Your task to perform on an android device: turn off notifications in google photos Image 0: 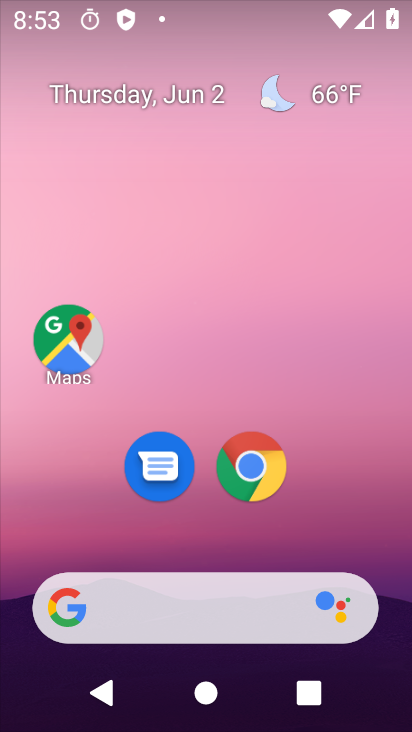
Step 0: drag from (86, 546) to (349, 131)
Your task to perform on an android device: turn off notifications in google photos Image 1: 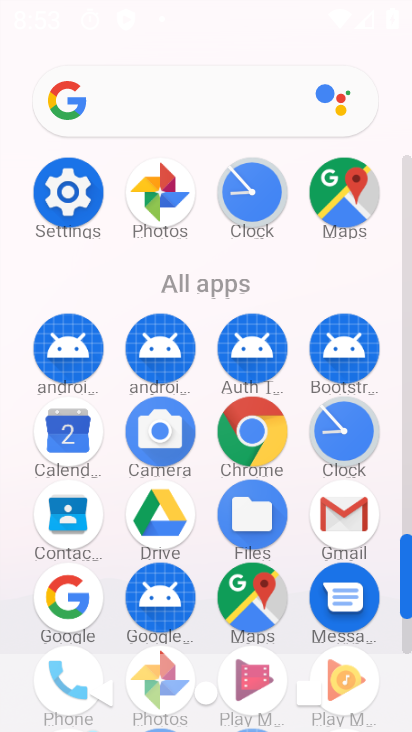
Step 1: drag from (43, 452) to (219, 186)
Your task to perform on an android device: turn off notifications in google photos Image 2: 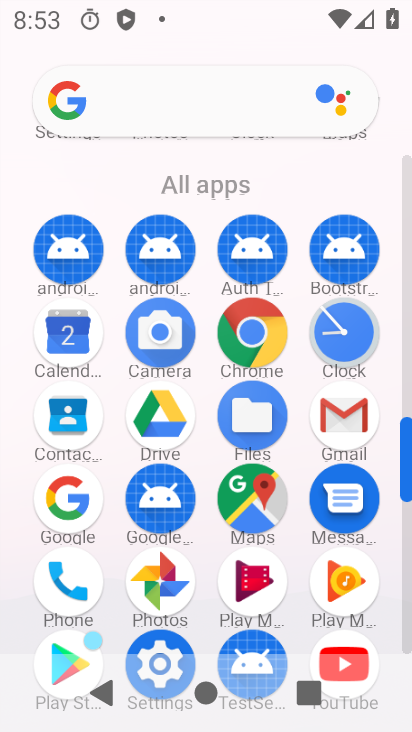
Step 2: click (159, 574)
Your task to perform on an android device: turn off notifications in google photos Image 3: 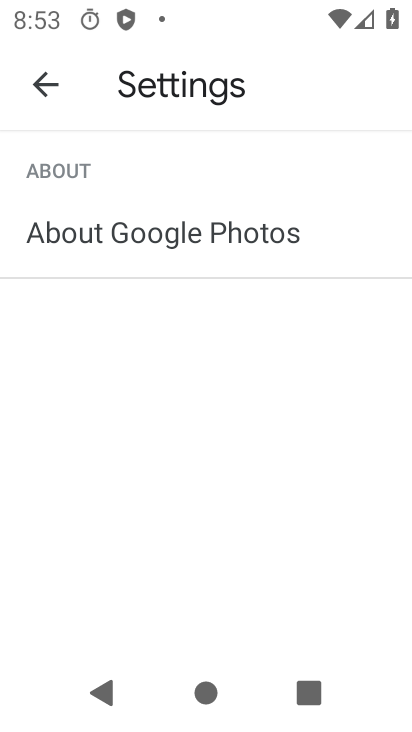
Step 3: click (44, 85)
Your task to perform on an android device: turn off notifications in google photos Image 4: 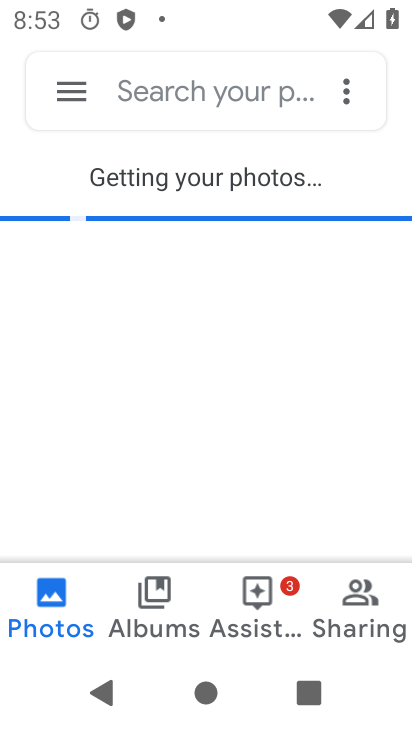
Step 4: click (86, 94)
Your task to perform on an android device: turn off notifications in google photos Image 5: 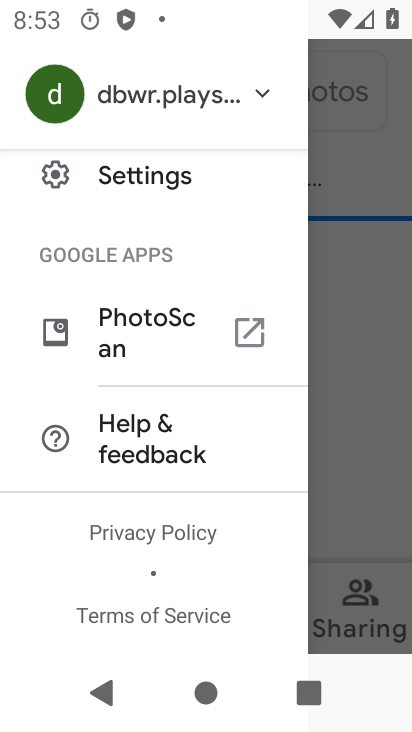
Step 5: click (114, 180)
Your task to perform on an android device: turn off notifications in google photos Image 6: 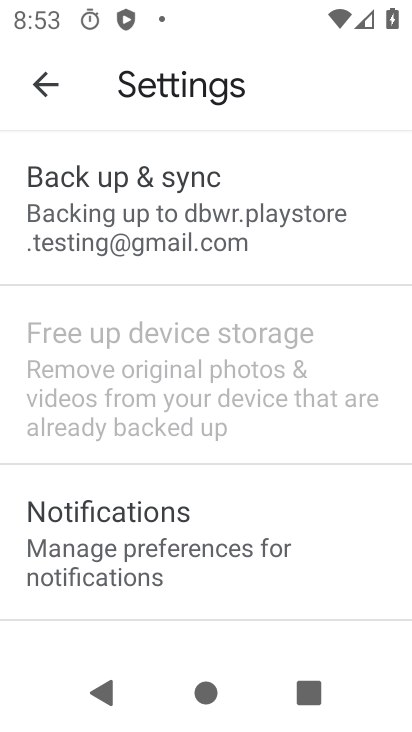
Step 6: drag from (38, 376) to (171, 116)
Your task to perform on an android device: turn off notifications in google photos Image 7: 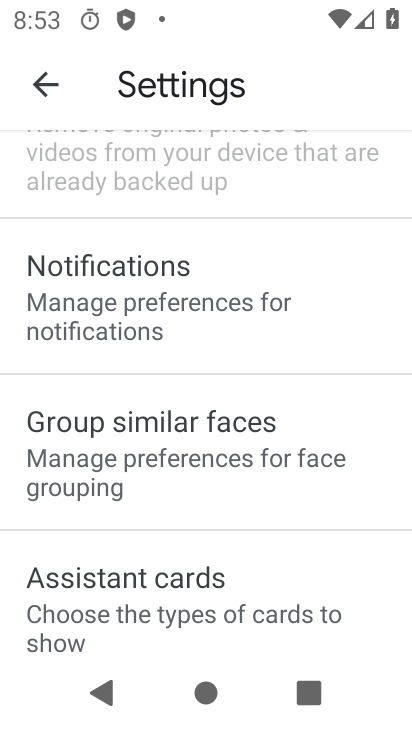
Step 7: click (106, 310)
Your task to perform on an android device: turn off notifications in google photos Image 8: 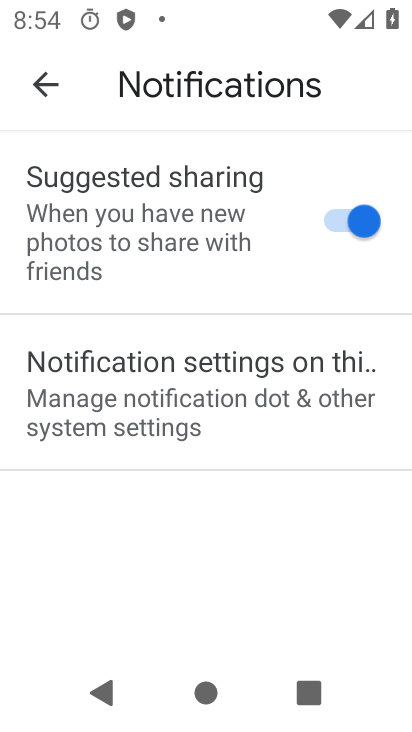
Step 8: click (260, 395)
Your task to perform on an android device: turn off notifications in google photos Image 9: 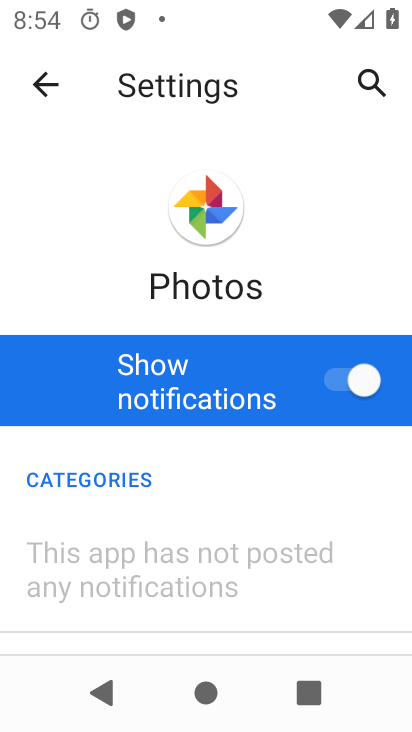
Step 9: click (358, 380)
Your task to perform on an android device: turn off notifications in google photos Image 10: 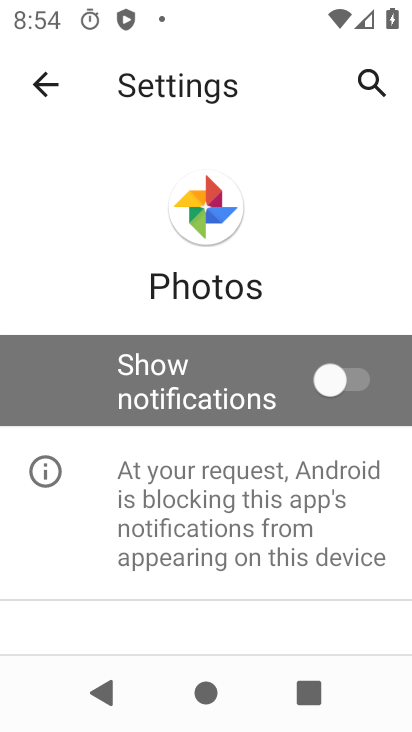
Step 10: task complete